Your task to perform on an android device: toggle notification dots Image 0: 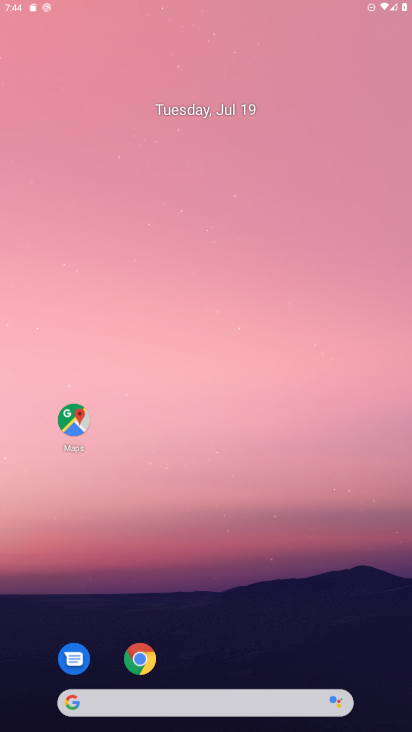
Step 0: press home button
Your task to perform on an android device: toggle notification dots Image 1: 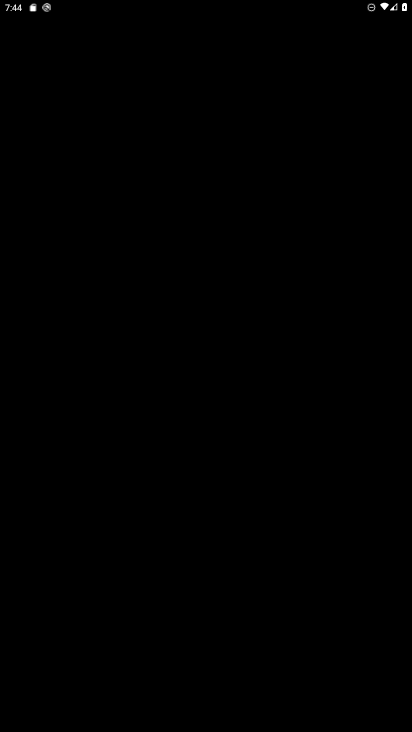
Step 1: drag from (177, 714) to (183, 231)
Your task to perform on an android device: toggle notification dots Image 2: 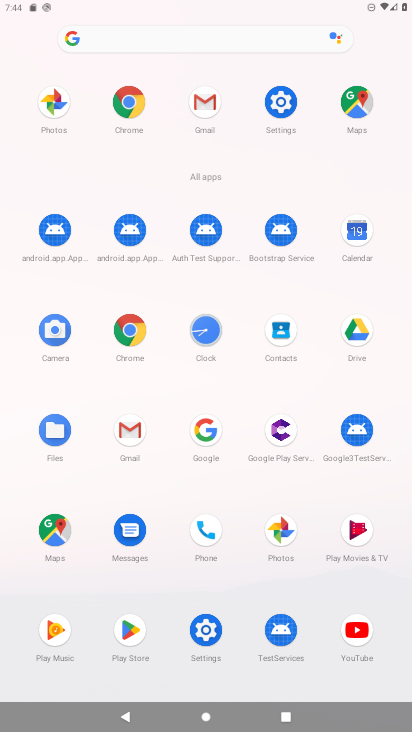
Step 2: click (287, 92)
Your task to perform on an android device: toggle notification dots Image 3: 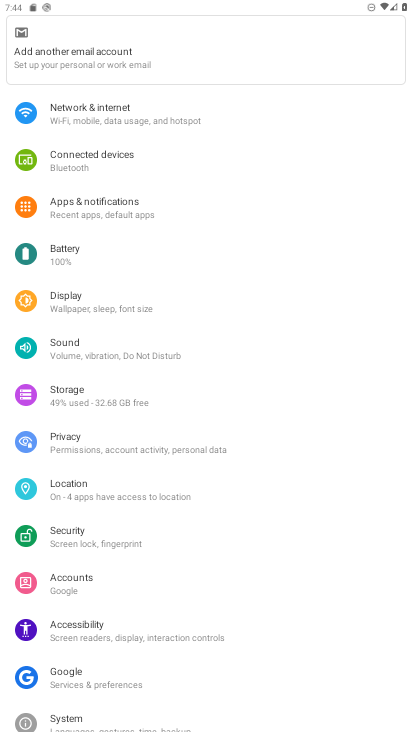
Step 3: drag from (213, 153) to (207, 583)
Your task to perform on an android device: toggle notification dots Image 4: 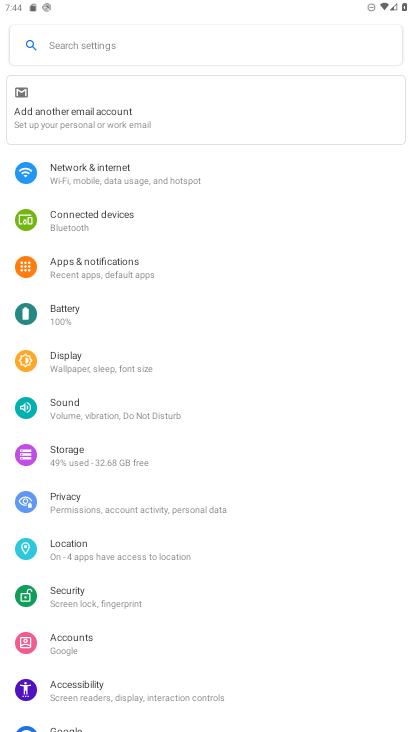
Step 4: click (157, 40)
Your task to perform on an android device: toggle notification dots Image 5: 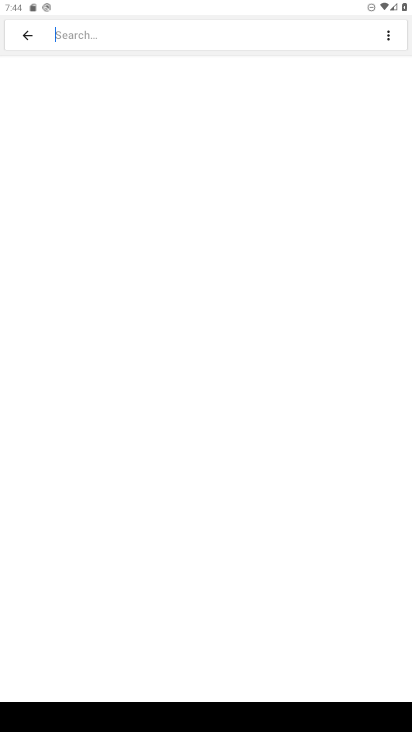
Step 5: click (159, 33)
Your task to perform on an android device: toggle notification dots Image 6: 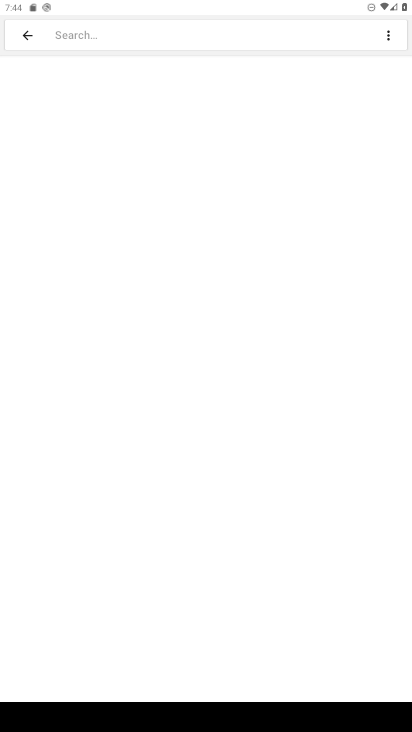
Step 6: type "notification dots "
Your task to perform on an android device: toggle notification dots Image 7: 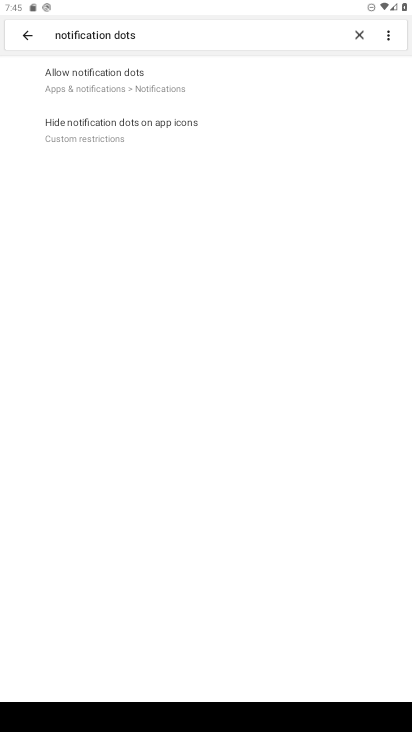
Step 7: click (133, 81)
Your task to perform on an android device: toggle notification dots Image 8: 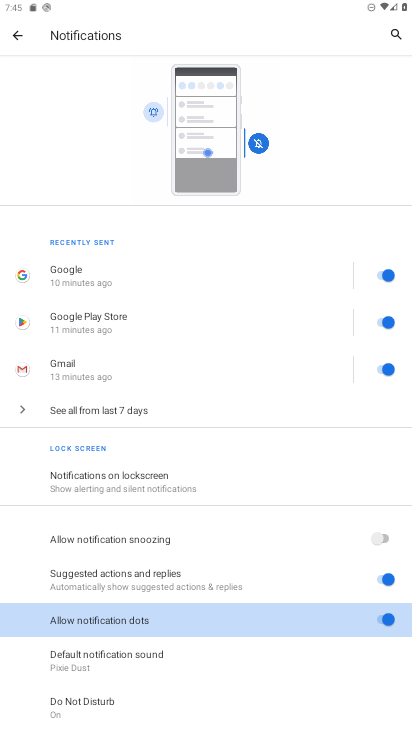
Step 8: click (394, 617)
Your task to perform on an android device: toggle notification dots Image 9: 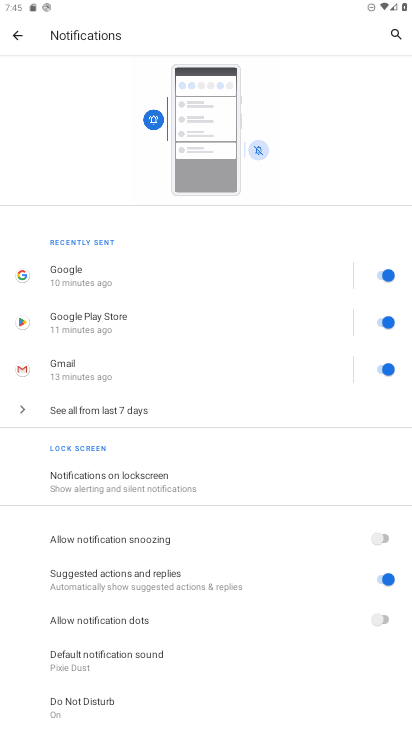
Step 9: task complete